Your task to perform on an android device: open a new tab in the chrome app Image 0: 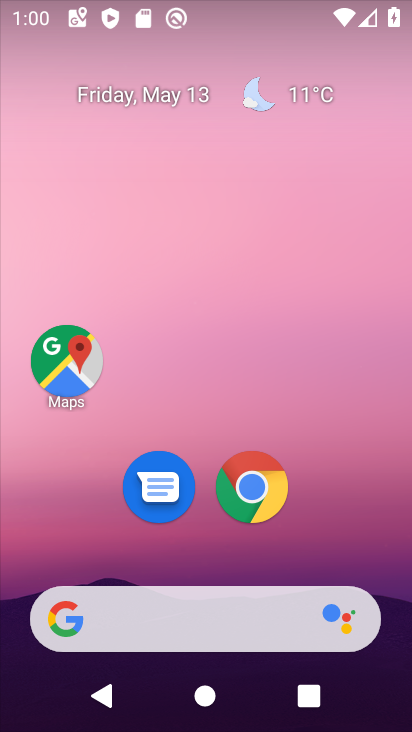
Step 0: click (260, 513)
Your task to perform on an android device: open a new tab in the chrome app Image 1: 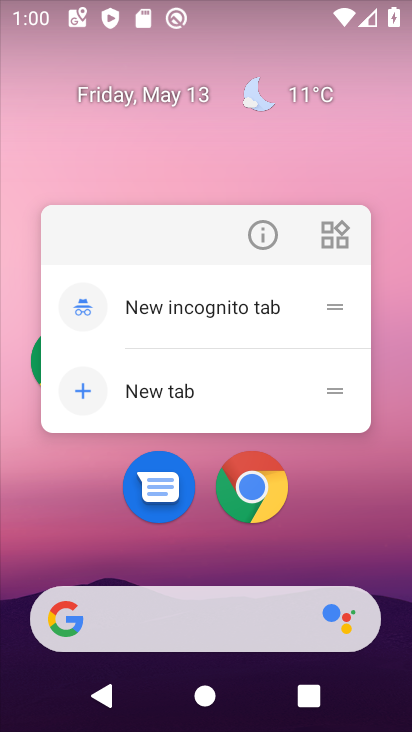
Step 1: click (249, 500)
Your task to perform on an android device: open a new tab in the chrome app Image 2: 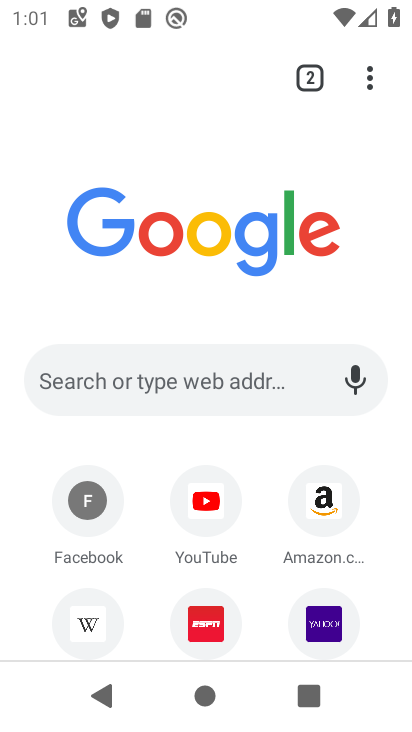
Step 2: task complete